Your task to perform on an android device: Open CNN.com Image 0: 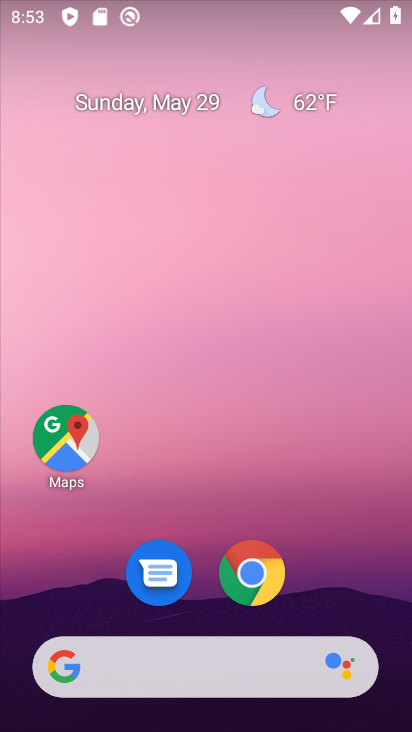
Step 0: press home button
Your task to perform on an android device: Open CNN.com Image 1: 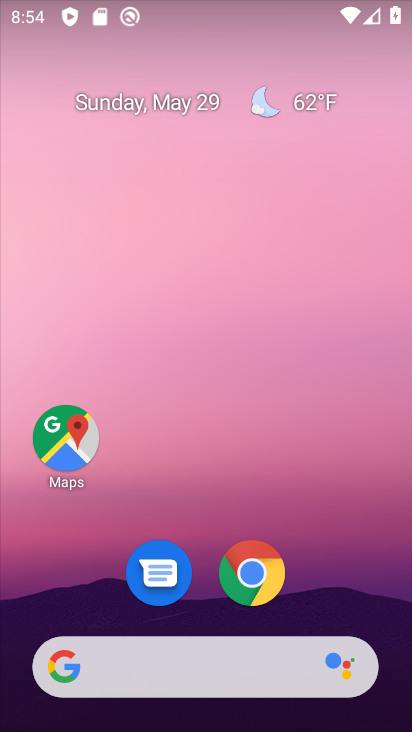
Step 1: click (59, 671)
Your task to perform on an android device: Open CNN.com Image 2: 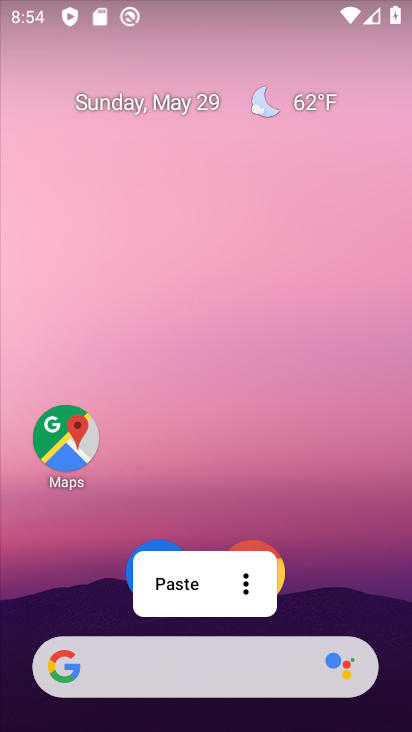
Step 2: click (63, 671)
Your task to perform on an android device: Open CNN.com Image 3: 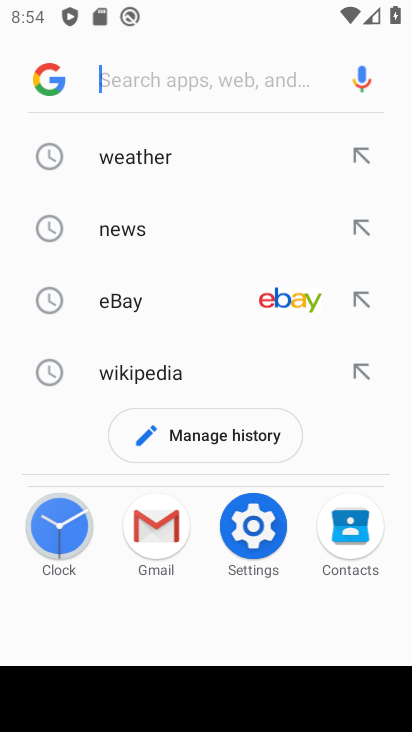
Step 3: type "CNN.com"
Your task to perform on an android device: Open CNN.com Image 4: 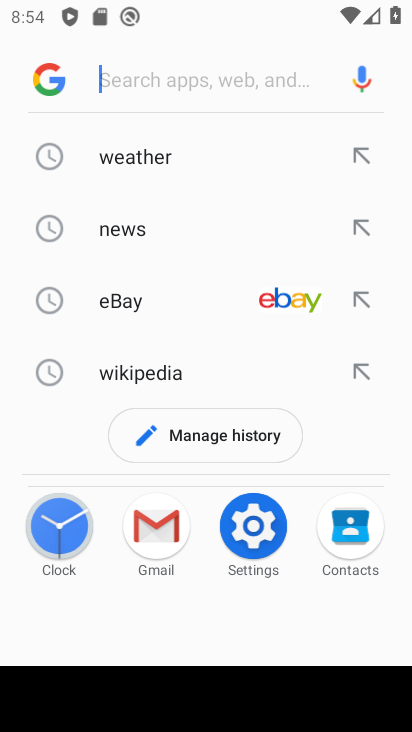
Step 4: click (201, 80)
Your task to perform on an android device: Open CNN.com Image 5: 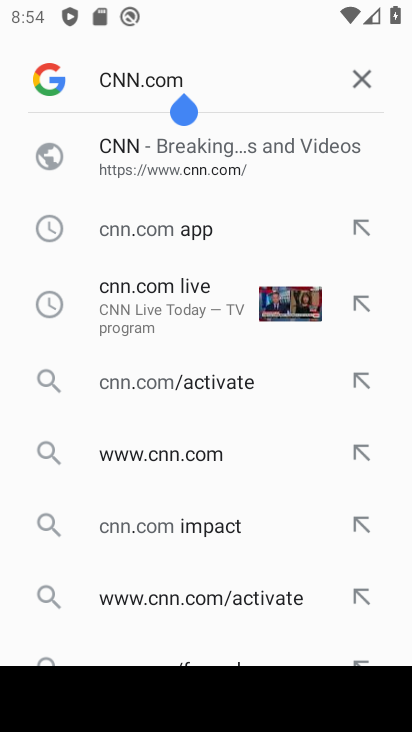
Step 5: click (167, 159)
Your task to perform on an android device: Open CNN.com Image 6: 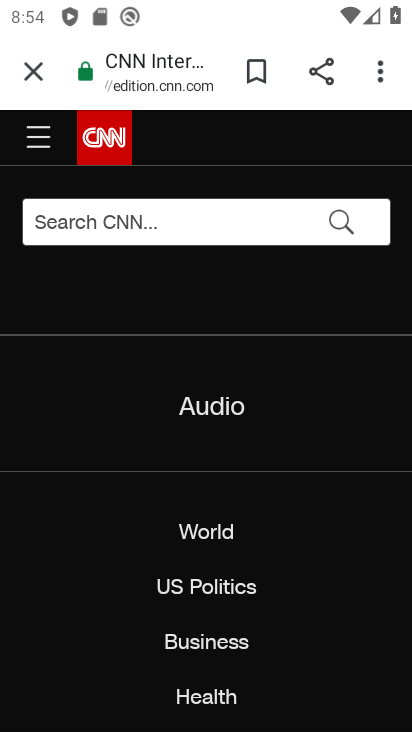
Step 6: task complete